Your task to perform on an android device: find snoozed emails in the gmail app Image 0: 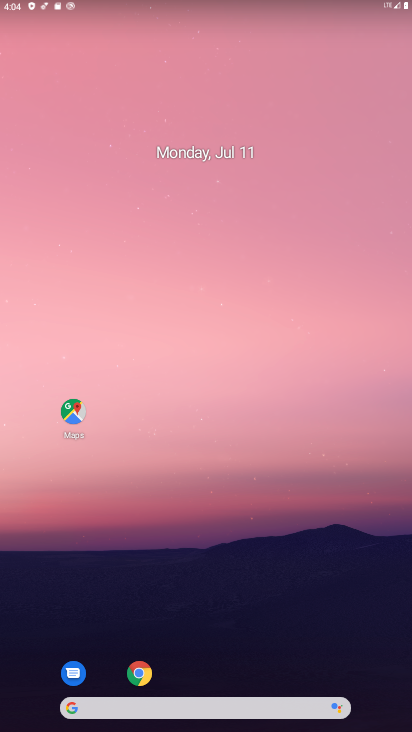
Step 0: drag from (370, 694) to (170, 41)
Your task to perform on an android device: find snoozed emails in the gmail app Image 1: 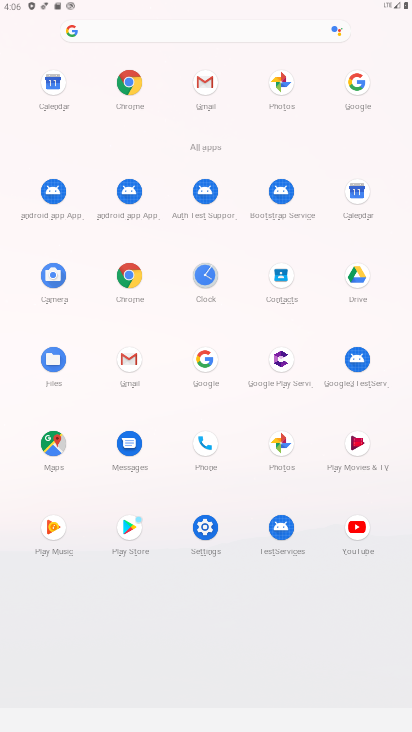
Step 1: click (122, 358)
Your task to perform on an android device: find snoozed emails in the gmail app Image 2: 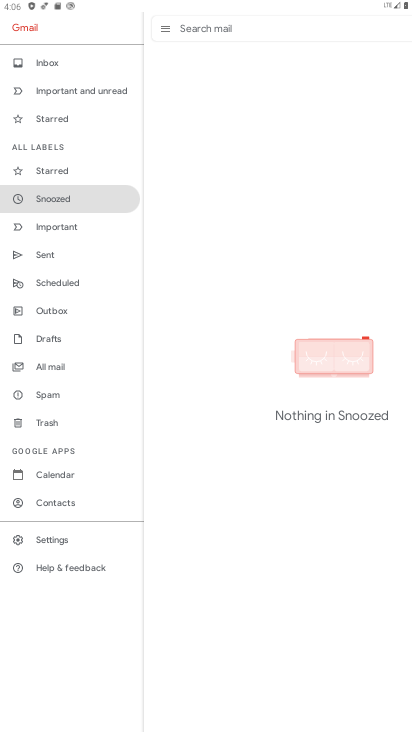
Step 2: task complete